Your task to perform on an android device: turn on translation in the chrome app Image 0: 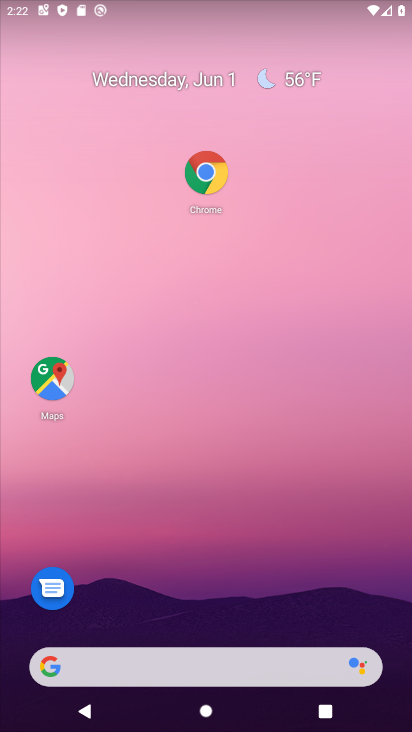
Step 0: press home button
Your task to perform on an android device: turn on translation in the chrome app Image 1: 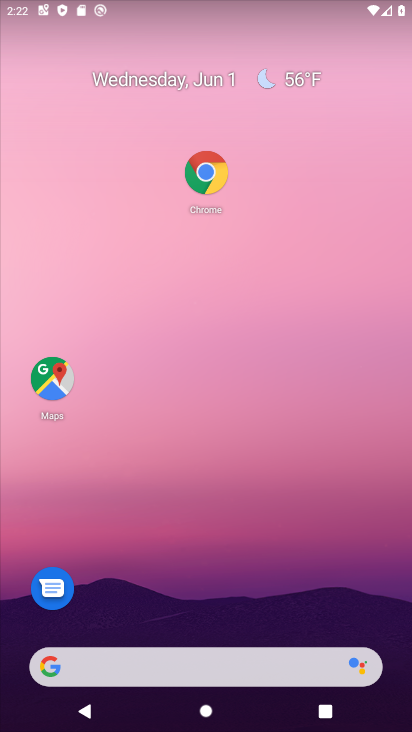
Step 1: drag from (230, 593) to (214, 74)
Your task to perform on an android device: turn on translation in the chrome app Image 2: 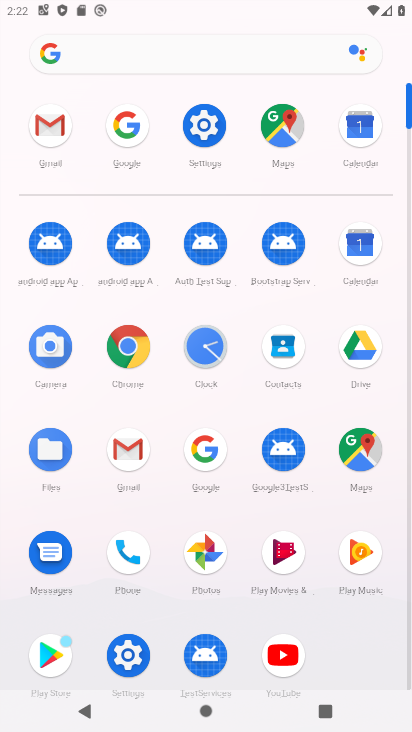
Step 2: click (126, 347)
Your task to perform on an android device: turn on translation in the chrome app Image 3: 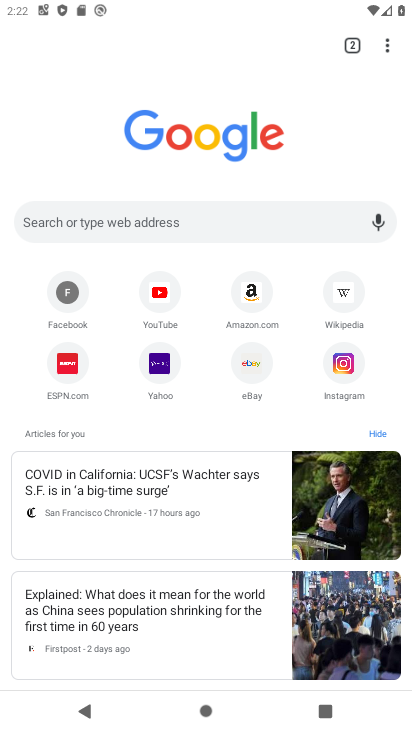
Step 3: click (378, 44)
Your task to perform on an android device: turn on translation in the chrome app Image 4: 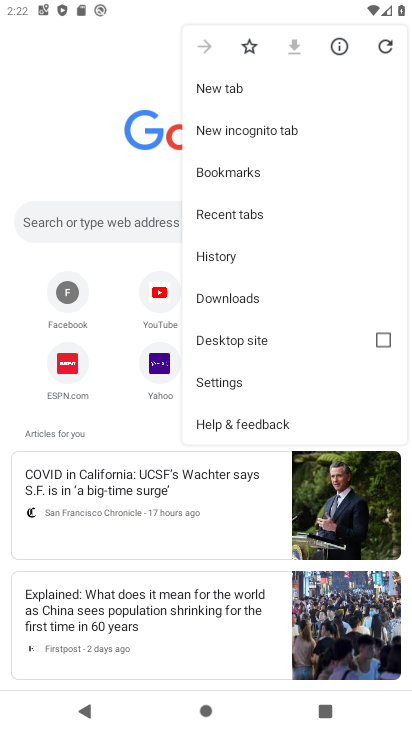
Step 4: click (246, 388)
Your task to perform on an android device: turn on translation in the chrome app Image 5: 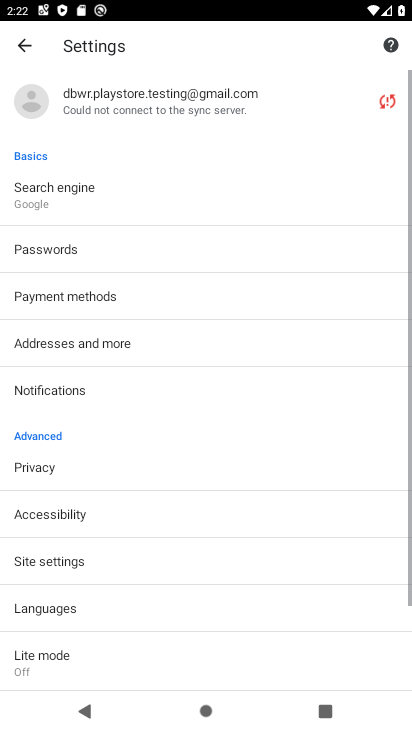
Step 5: drag from (162, 567) to (167, 460)
Your task to perform on an android device: turn on translation in the chrome app Image 6: 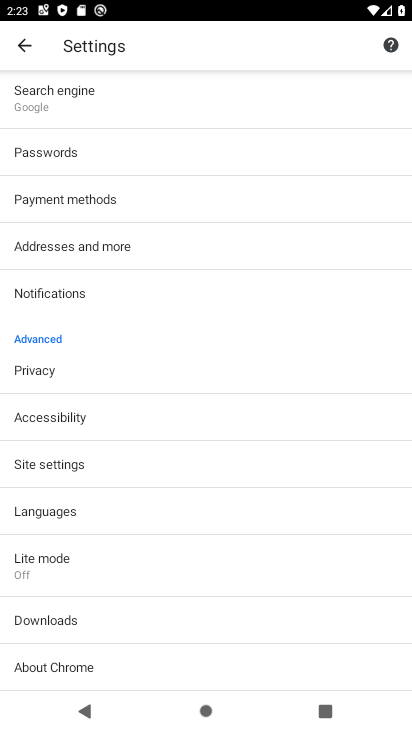
Step 6: click (66, 515)
Your task to perform on an android device: turn on translation in the chrome app Image 7: 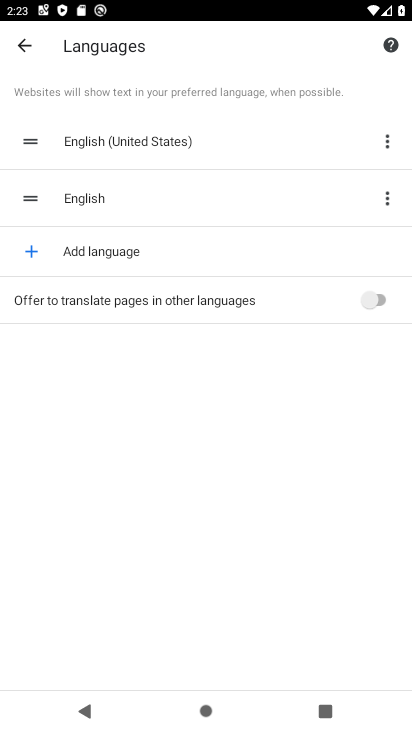
Step 7: click (378, 296)
Your task to perform on an android device: turn on translation in the chrome app Image 8: 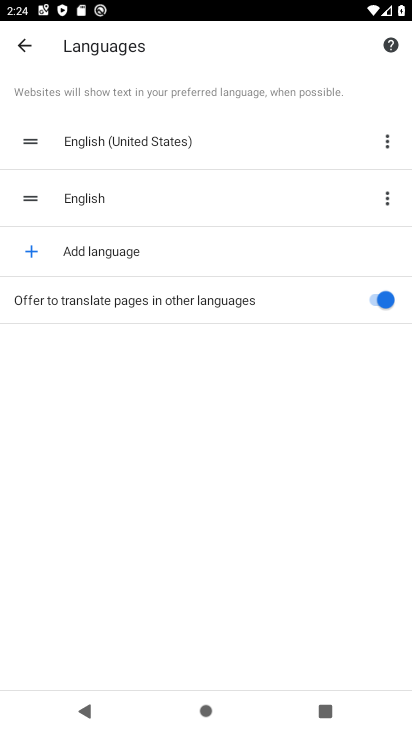
Step 8: task complete